Your task to perform on an android device: turn off priority inbox in the gmail app Image 0: 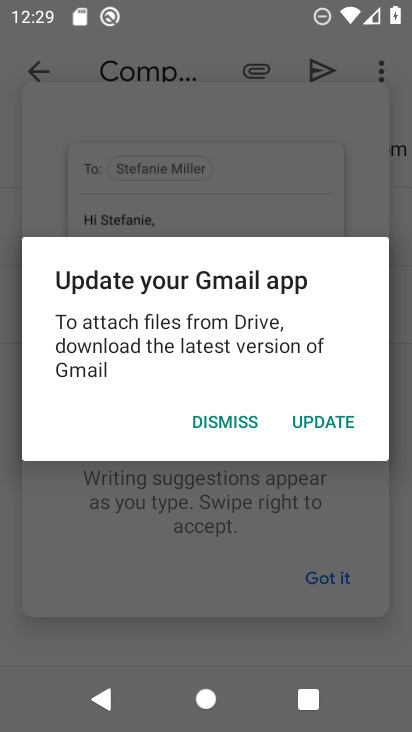
Step 0: press home button
Your task to perform on an android device: turn off priority inbox in the gmail app Image 1: 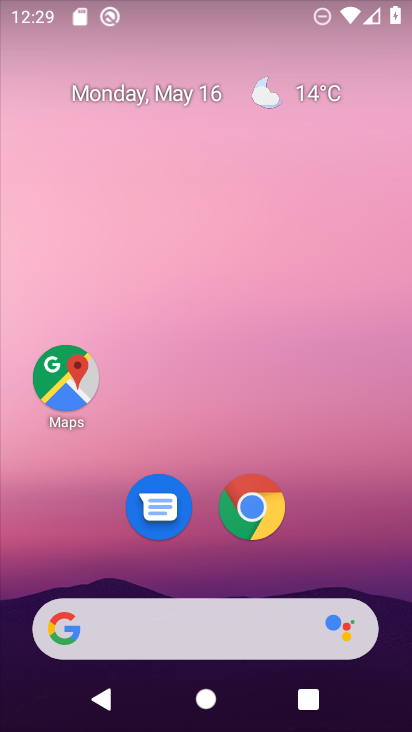
Step 1: drag from (316, 540) to (345, 254)
Your task to perform on an android device: turn off priority inbox in the gmail app Image 2: 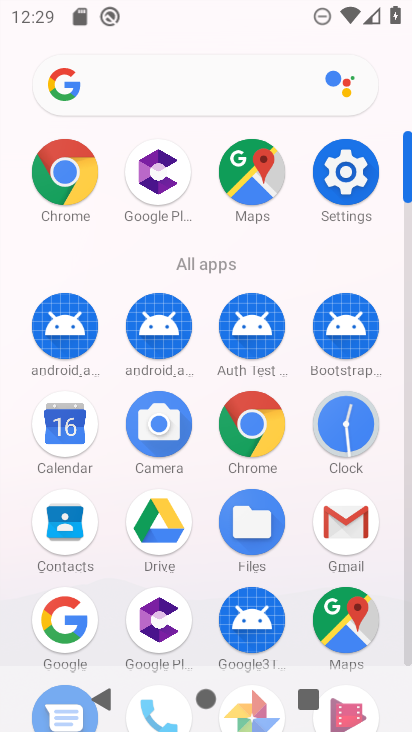
Step 2: click (371, 537)
Your task to perform on an android device: turn off priority inbox in the gmail app Image 3: 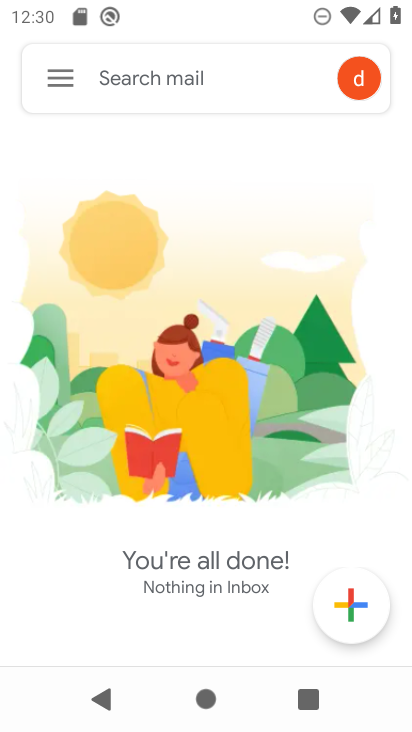
Step 3: click (66, 88)
Your task to perform on an android device: turn off priority inbox in the gmail app Image 4: 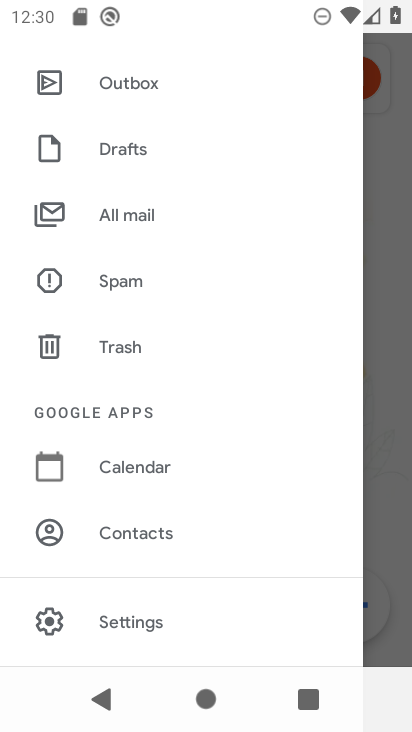
Step 4: click (153, 626)
Your task to perform on an android device: turn off priority inbox in the gmail app Image 5: 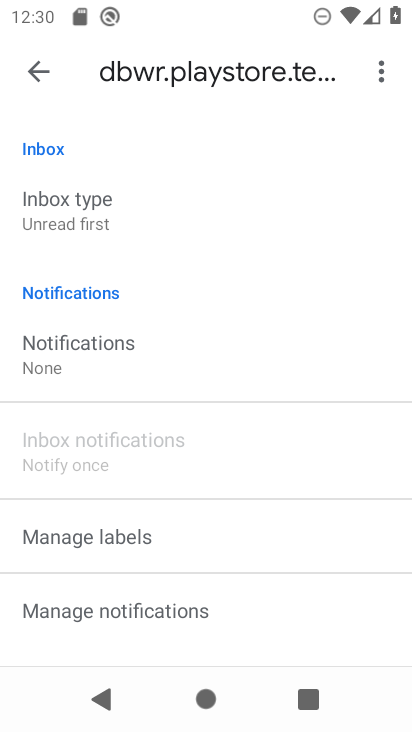
Step 5: click (121, 215)
Your task to perform on an android device: turn off priority inbox in the gmail app Image 6: 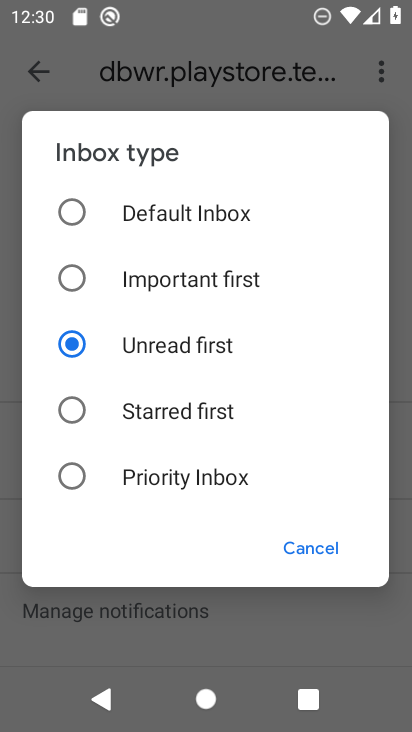
Step 6: task complete